Your task to perform on an android device: What's the weather going to be this weekend? Image 0: 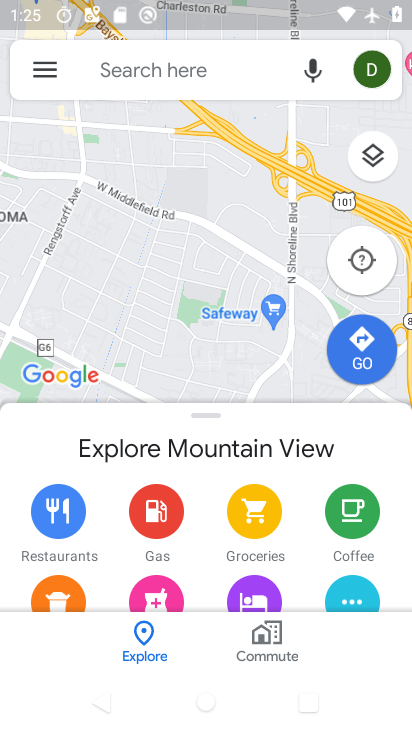
Step 0: press home button
Your task to perform on an android device: What's the weather going to be this weekend? Image 1: 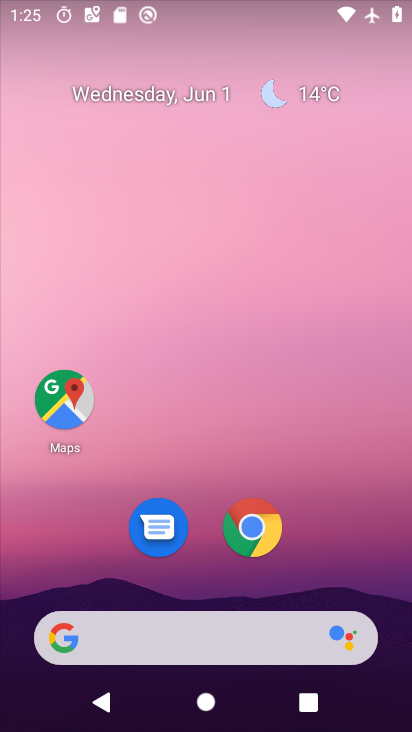
Step 1: click (310, 95)
Your task to perform on an android device: What's the weather going to be this weekend? Image 2: 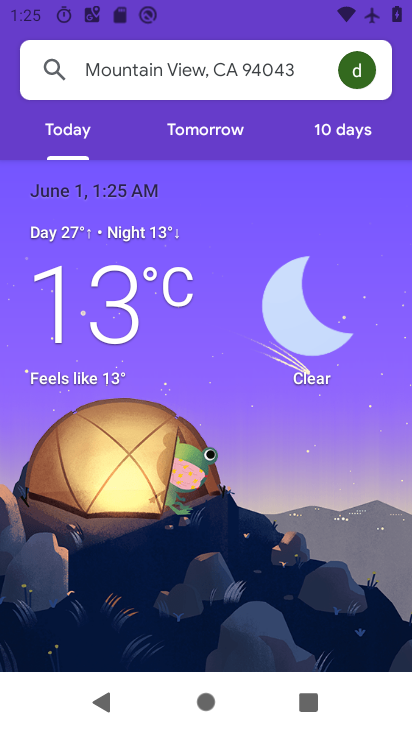
Step 2: click (327, 141)
Your task to perform on an android device: What's the weather going to be this weekend? Image 3: 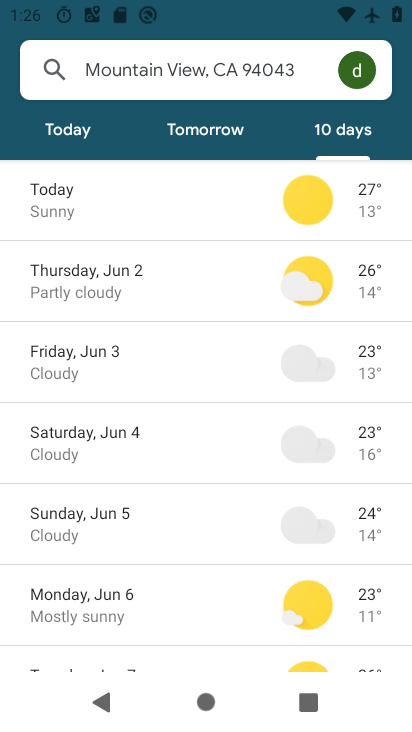
Step 3: task complete